Your task to perform on an android device: Open Youtube and go to "Your channel" Image 0: 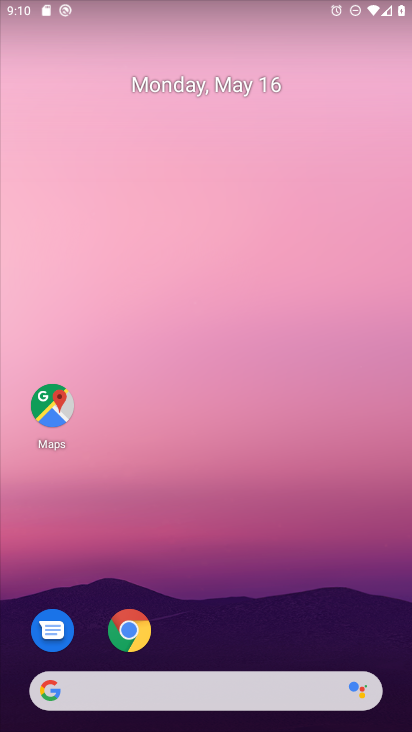
Step 0: drag from (259, 556) to (294, 125)
Your task to perform on an android device: Open Youtube and go to "Your channel" Image 1: 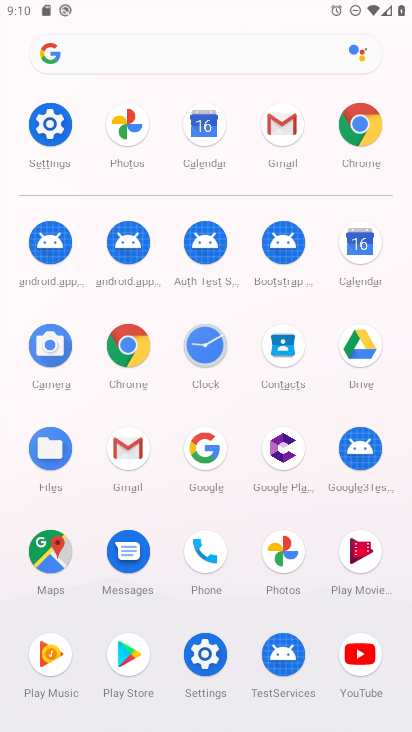
Step 1: click (373, 660)
Your task to perform on an android device: Open Youtube and go to "Your channel" Image 2: 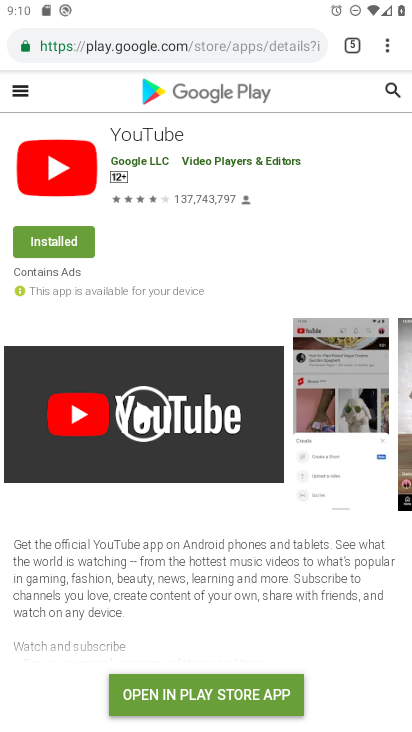
Step 2: click (238, 693)
Your task to perform on an android device: Open Youtube and go to "Your channel" Image 3: 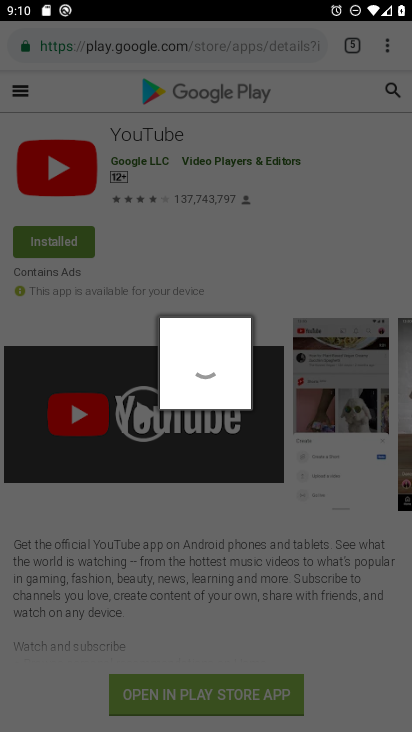
Step 3: click (219, 697)
Your task to perform on an android device: Open Youtube and go to "Your channel" Image 4: 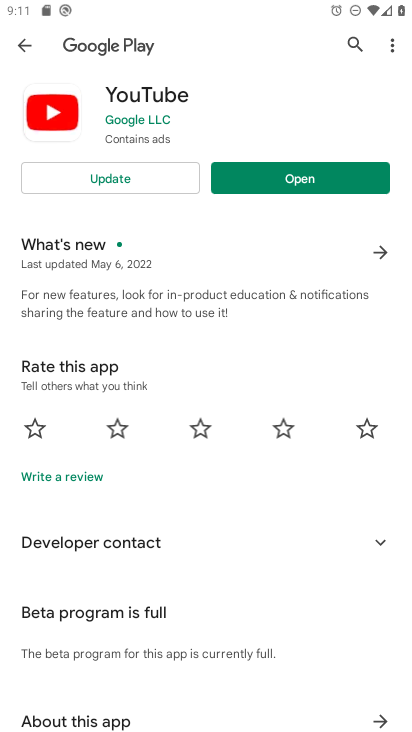
Step 4: click (120, 176)
Your task to perform on an android device: Open Youtube and go to "Your channel" Image 5: 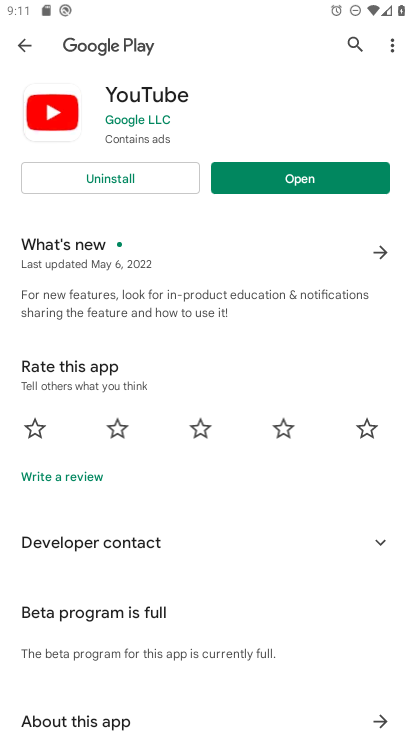
Step 5: click (279, 177)
Your task to perform on an android device: Open Youtube and go to "Your channel" Image 6: 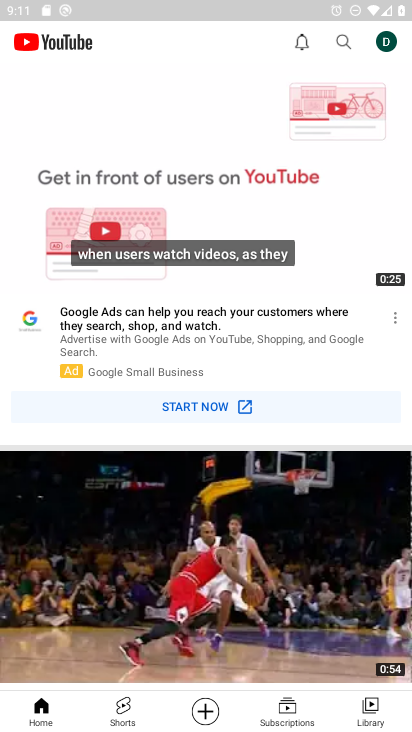
Step 6: click (386, 31)
Your task to perform on an android device: Open Youtube and go to "Your channel" Image 7: 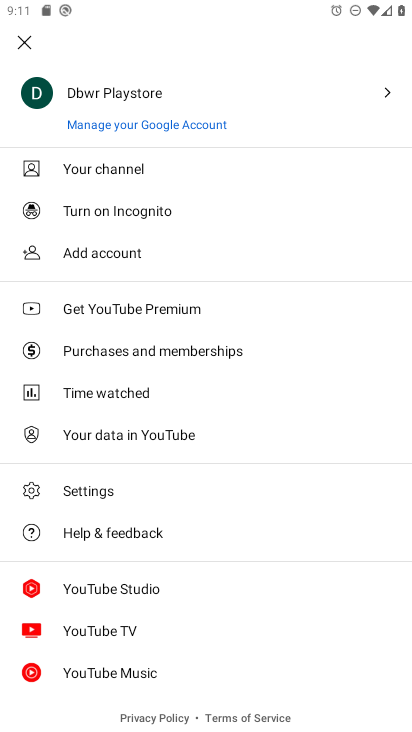
Step 7: click (246, 174)
Your task to perform on an android device: Open Youtube and go to "Your channel" Image 8: 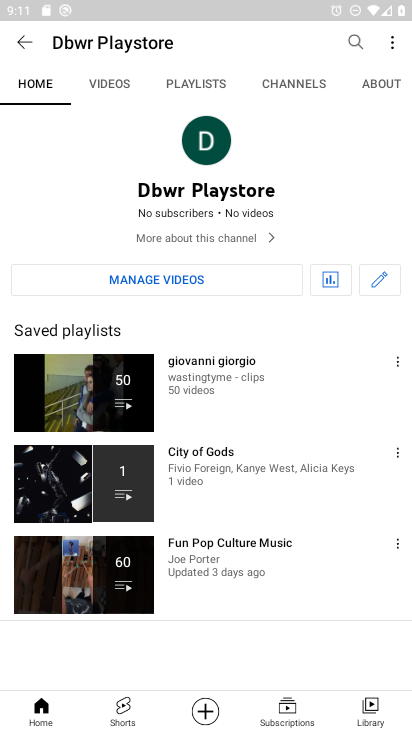
Step 8: task complete